Your task to perform on an android device: Show me recent news Image 0: 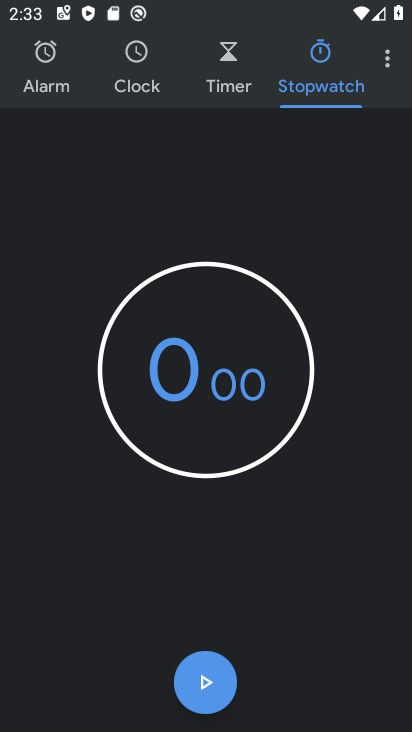
Step 0: press back button
Your task to perform on an android device: Show me recent news Image 1: 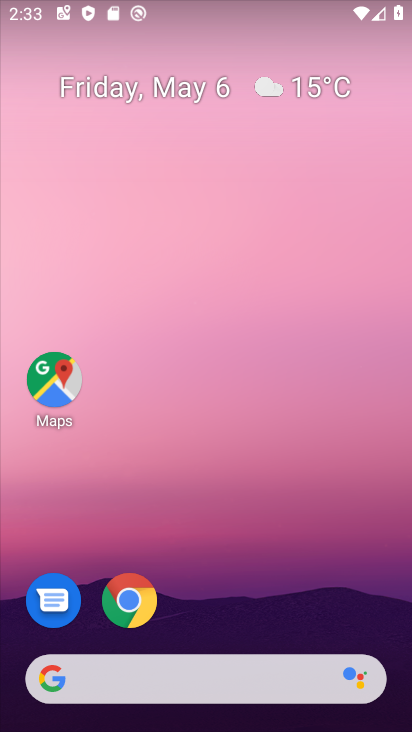
Step 1: drag from (331, 268) to (300, 0)
Your task to perform on an android device: Show me recent news Image 2: 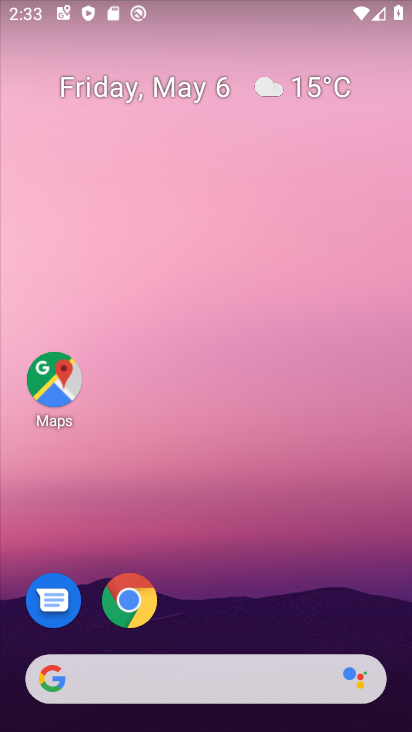
Step 2: drag from (396, 671) to (294, 13)
Your task to perform on an android device: Show me recent news Image 3: 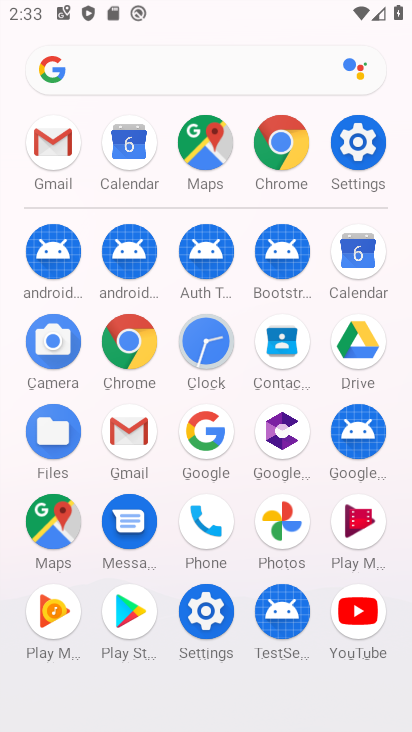
Step 3: drag from (10, 604) to (13, 278)
Your task to perform on an android device: Show me recent news Image 4: 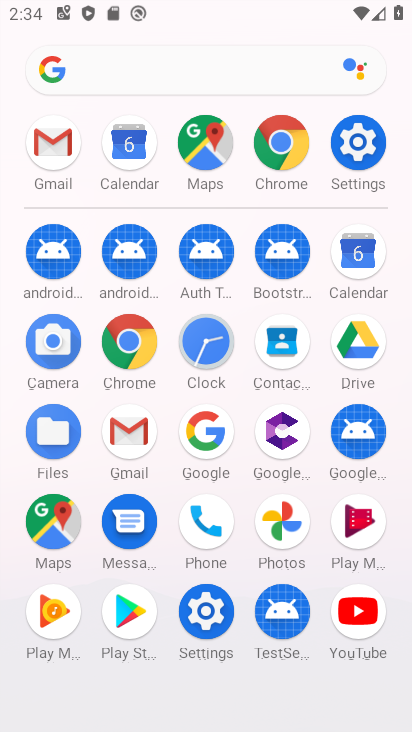
Step 4: click (128, 340)
Your task to perform on an android device: Show me recent news Image 5: 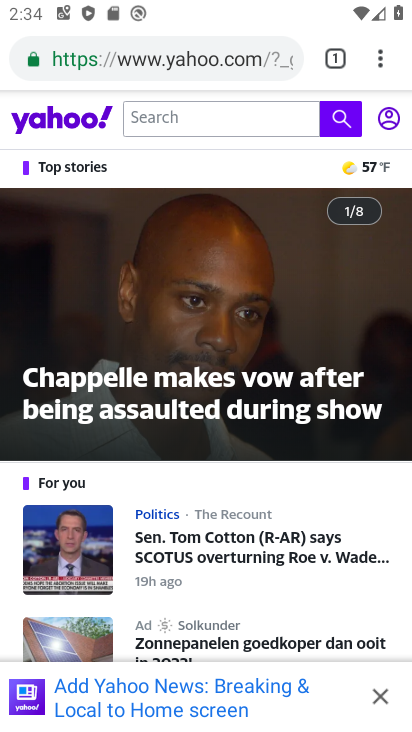
Step 5: click (160, 59)
Your task to perform on an android device: Show me recent news Image 6: 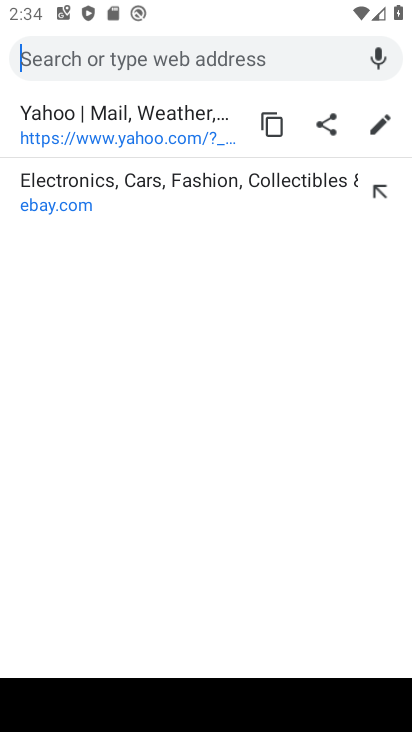
Step 6: click (152, 51)
Your task to perform on an android device: Show me recent news Image 7: 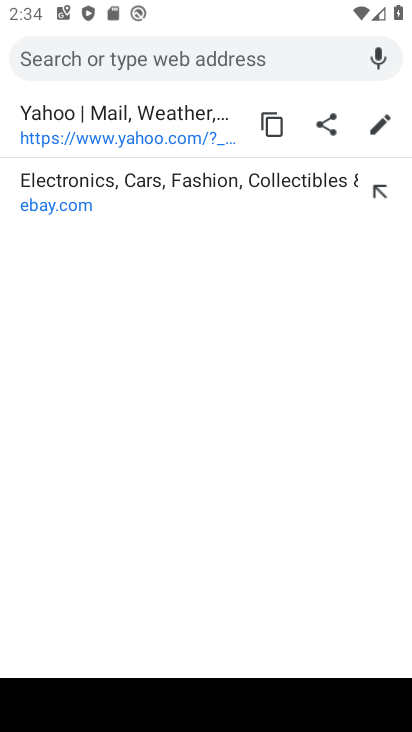
Step 7: type "recent news"
Your task to perform on an android device: Show me recent news Image 8: 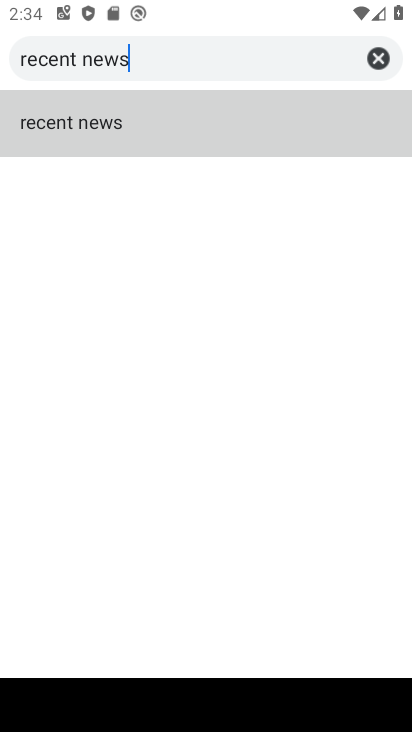
Step 8: type ""
Your task to perform on an android device: Show me recent news Image 9: 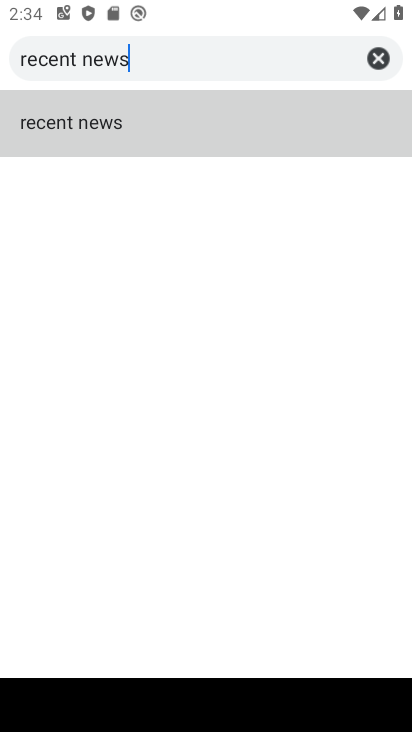
Step 9: click (151, 119)
Your task to perform on an android device: Show me recent news Image 10: 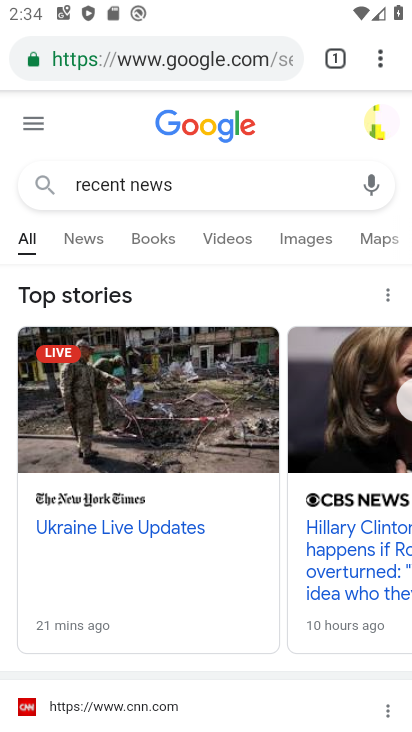
Step 10: task complete